Your task to perform on an android device: Open battery settings Image 0: 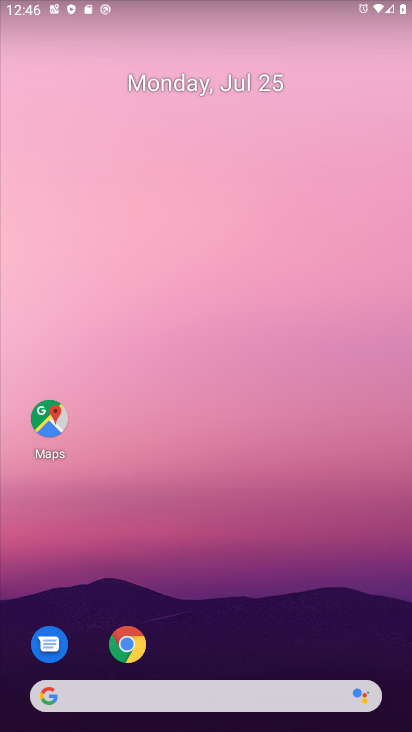
Step 0: drag from (342, 642) to (140, 7)
Your task to perform on an android device: Open battery settings Image 1: 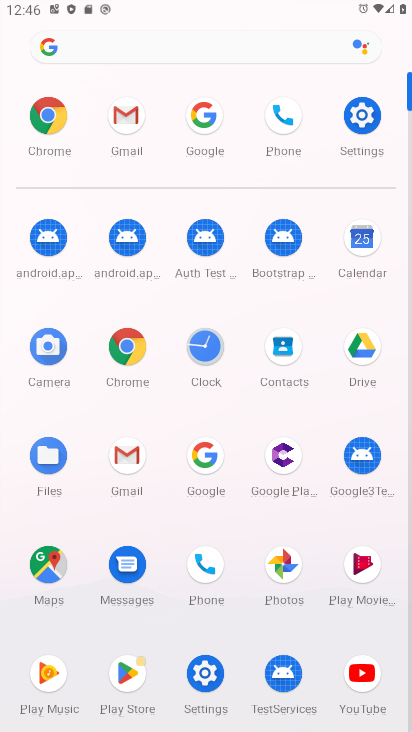
Step 1: click (355, 127)
Your task to perform on an android device: Open battery settings Image 2: 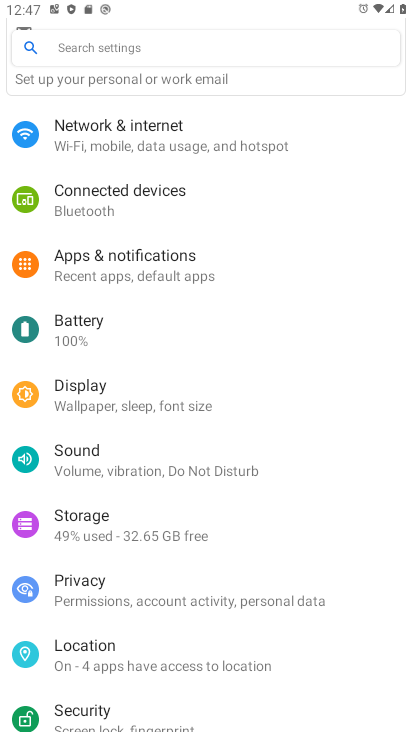
Step 2: click (87, 322)
Your task to perform on an android device: Open battery settings Image 3: 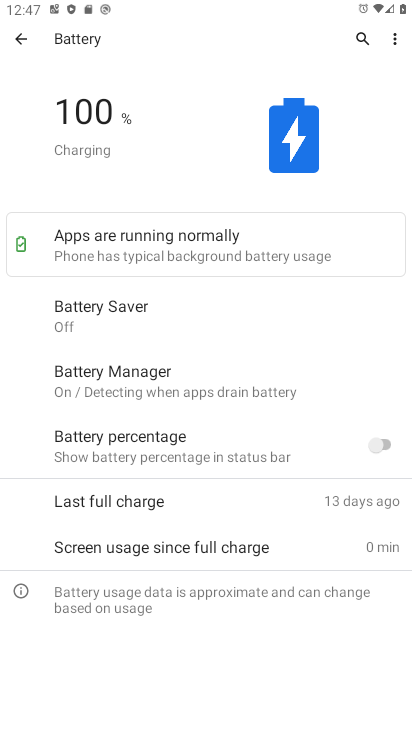
Step 3: task complete